Your task to perform on an android device: add a contact Image 0: 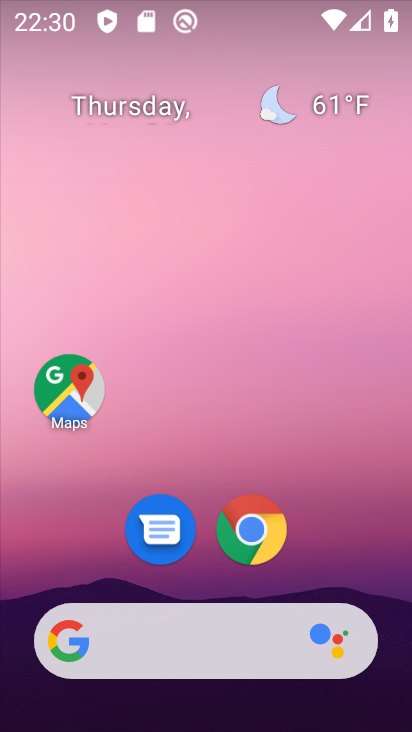
Step 0: drag from (356, 560) to (338, 227)
Your task to perform on an android device: add a contact Image 1: 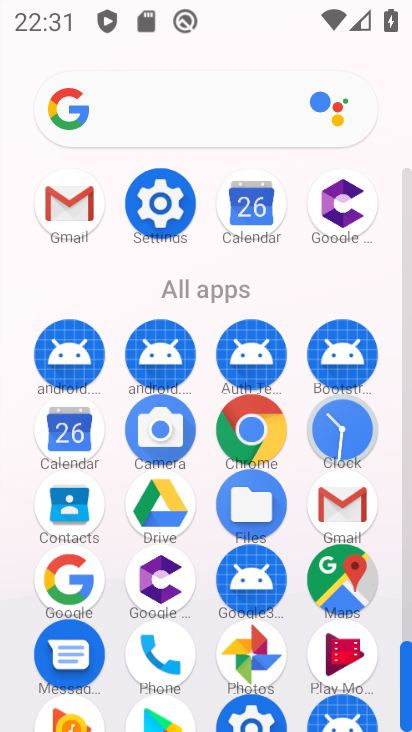
Step 1: click (66, 515)
Your task to perform on an android device: add a contact Image 2: 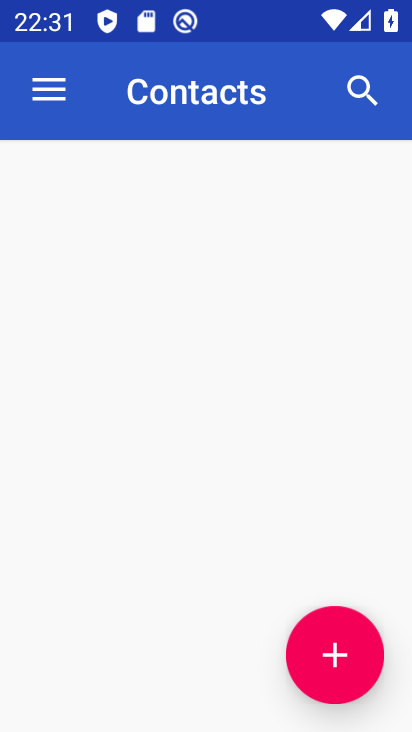
Step 2: click (335, 665)
Your task to perform on an android device: add a contact Image 3: 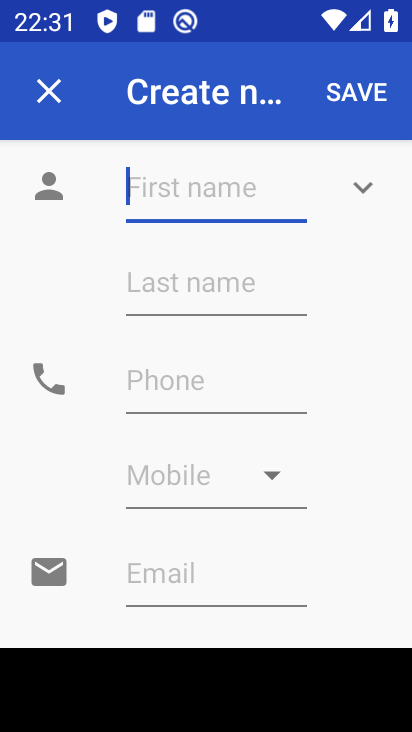
Step 3: type "dwdsdc"
Your task to perform on an android device: add a contact Image 4: 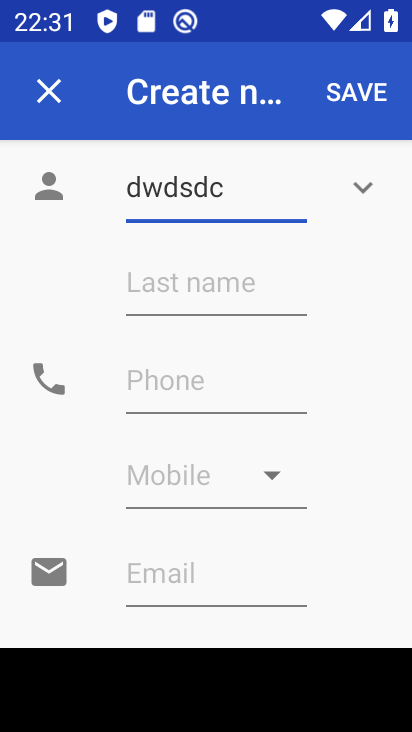
Step 4: click (345, 94)
Your task to perform on an android device: add a contact Image 5: 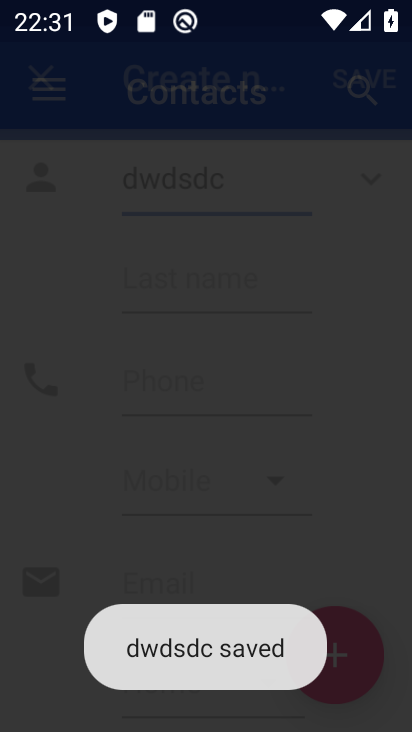
Step 5: task complete